Your task to perform on an android device: Open the calendar app, open the side menu, and click the "Day" option Image 0: 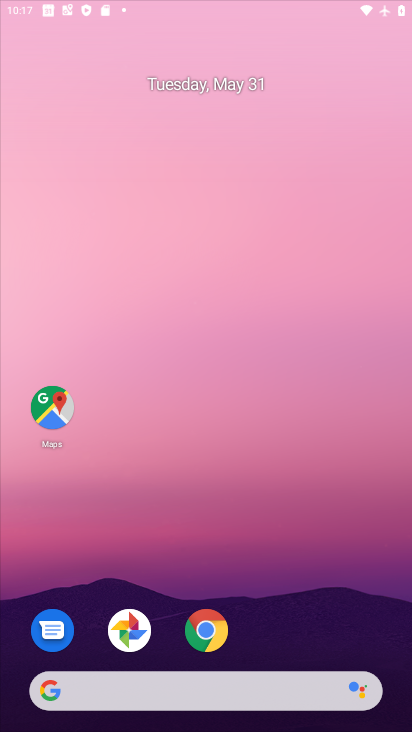
Step 0: click (249, 193)
Your task to perform on an android device: Open the calendar app, open the side menu, and click the "Day" option Image 1: 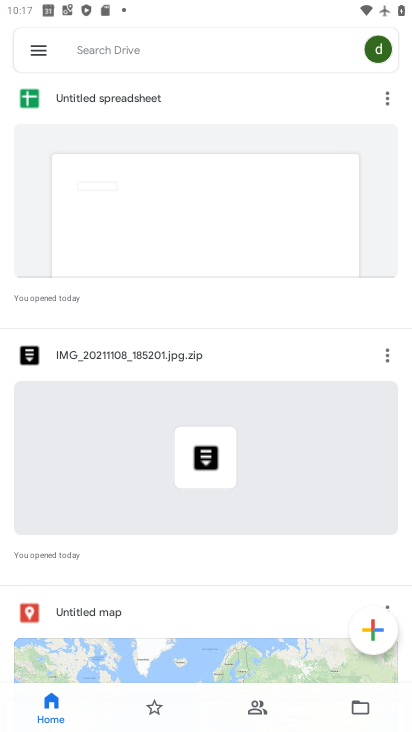
Step 1: press home button
Your task to perform on an android device: Open the calendar app, open the side menu, and click the "Day" option Image 2: 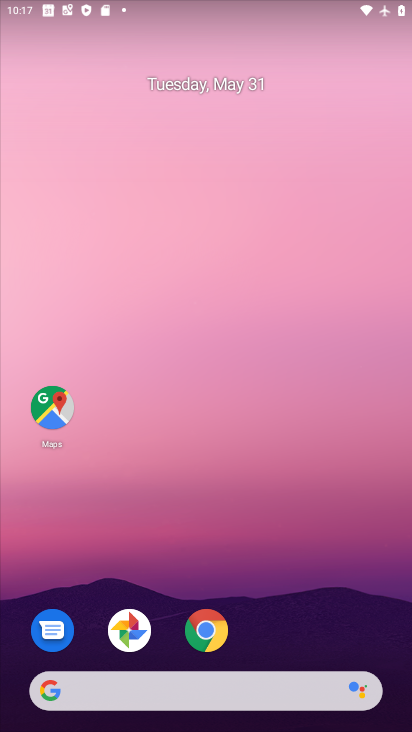
Step 2: drag from (240, 568) to (217, 174)
Your task to perform on an android device: Open the calendar app, open the side menu, and click the "Day" option Image 3: 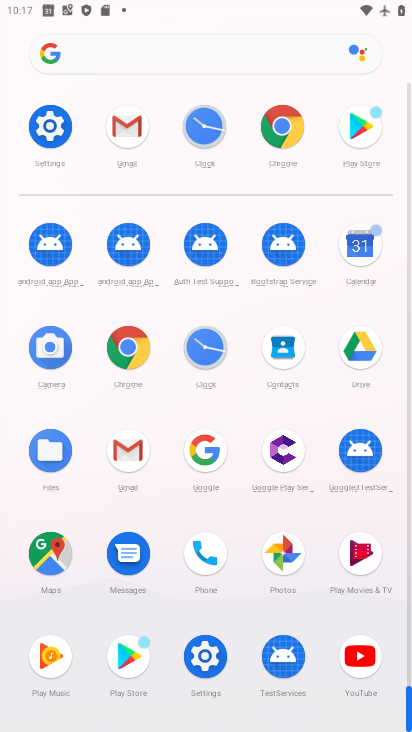
Step 3: click (351, 244)
Your task to perform on an android device: Open the calendar app, open the side menu, and click the "Day" option Image 4: 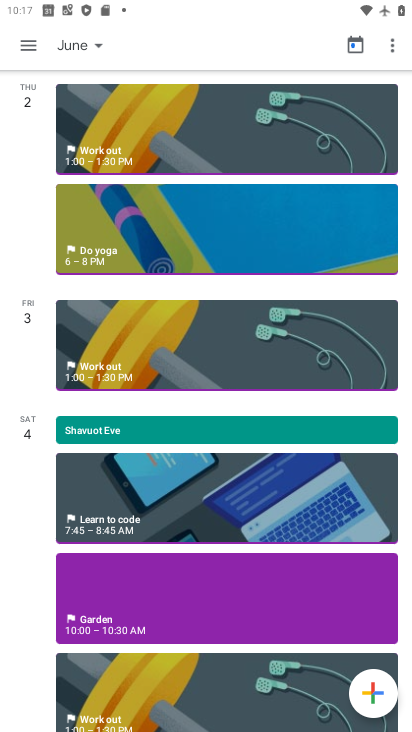
Step 4: click (23, 39)
Your task to perform on an android device: Open the calendar app, open the side menu, and click the "Day" option Image 5: 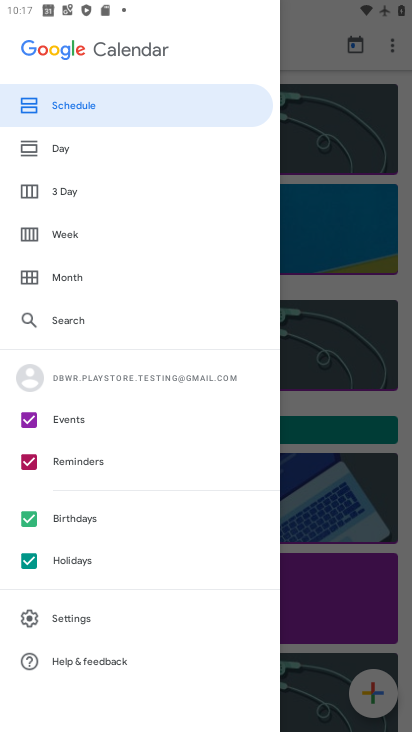
Step 5: click (72, 141)
Your task to perform on an android device: Open the calendar app, open the side menu, and click the "Day" option Image 6: 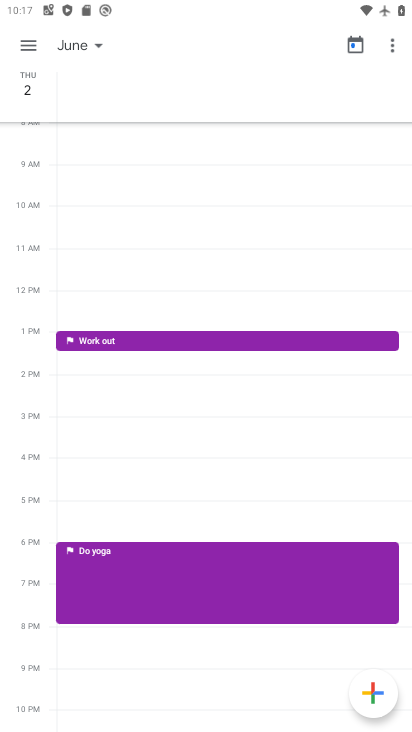
Step 6: task complete